Your task to perform on an android device: turn off picture-in-picture Image 0: 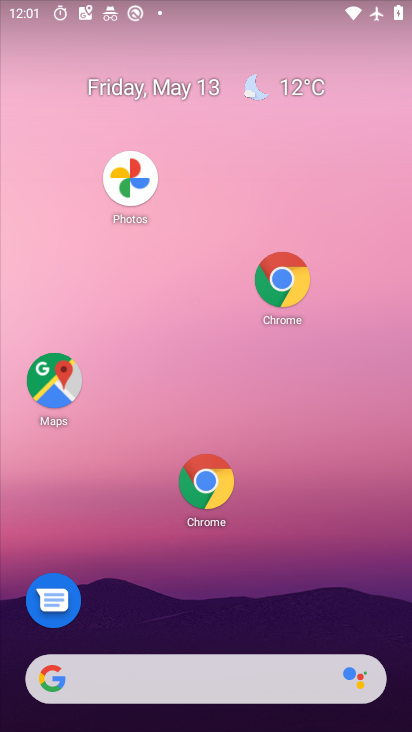
Step 0: drag from (353, 589) to (65, 33)
Your task to perform on an android device: turn off picture-in-picture Image 1: 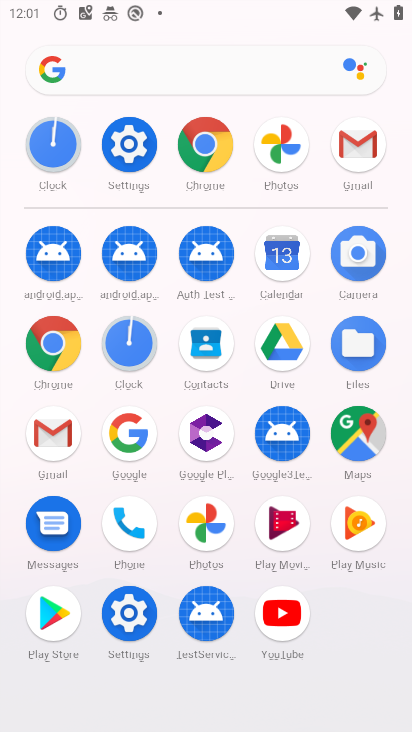
Step 1: drag from (197, 144) to (283, 392)
Your task to perform on an android device: turn off picture-in-picture Image 2: 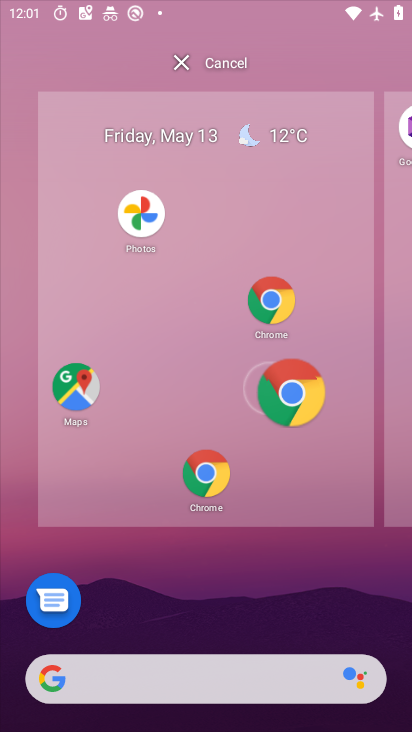
Step 2: click (287, 387)
Your task to perform on an android device: turn off picture-in-picture Image 3: 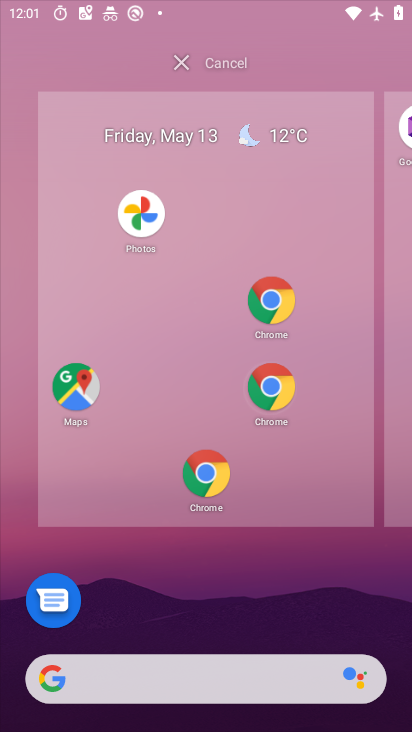
Step 3: click (287, 387)
Your task to perform on an android device: turn off picture-in-picture Image 4: 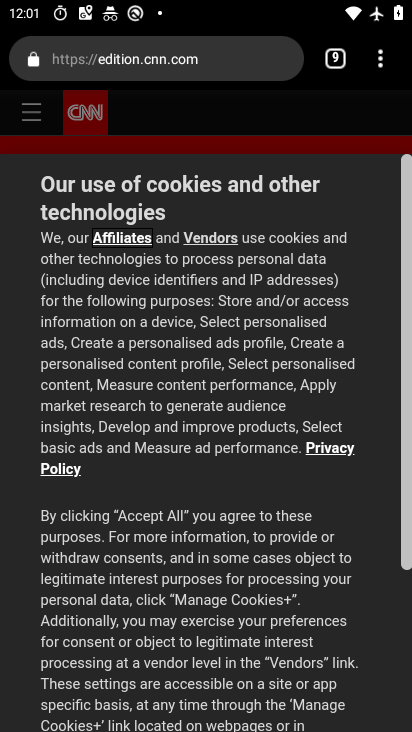
Step 4: click (378, 63)
Your task to perform on an android device: turn off picture-in-picture Image 5: 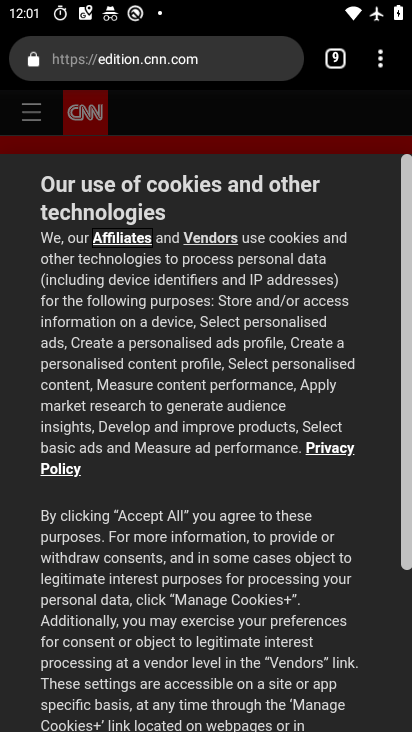
Step 5: click (386, 48)
Your task to perform on an android device: turn off picture-in-picture Image 6: 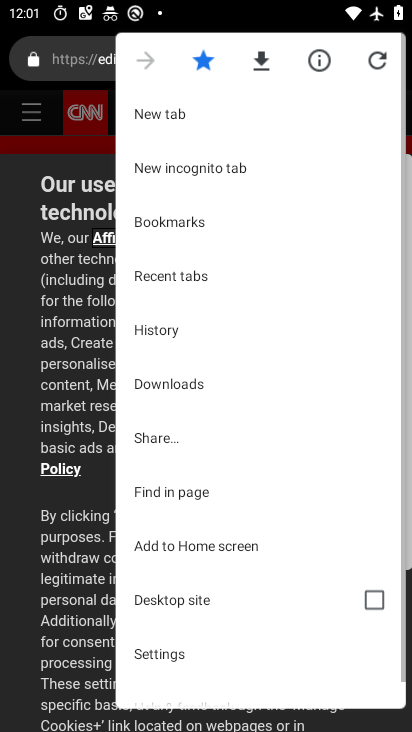
Step 6: press back button
Your task to perform on an android device: turn off picture-in-picture Image 7: 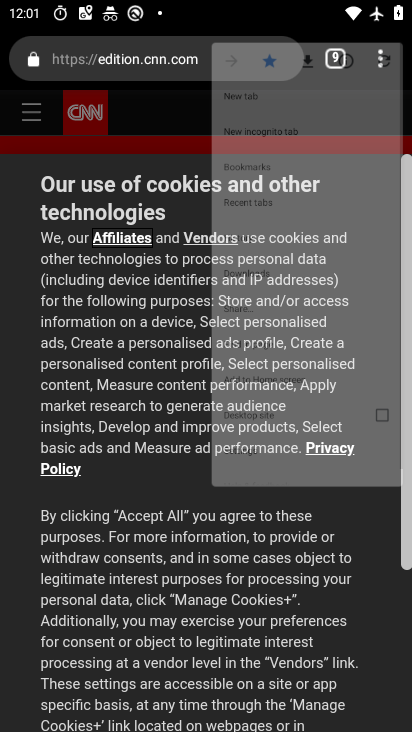
Step 7: press back button
Your task to perform on an android device: turn off picture-in-picture Image 8: 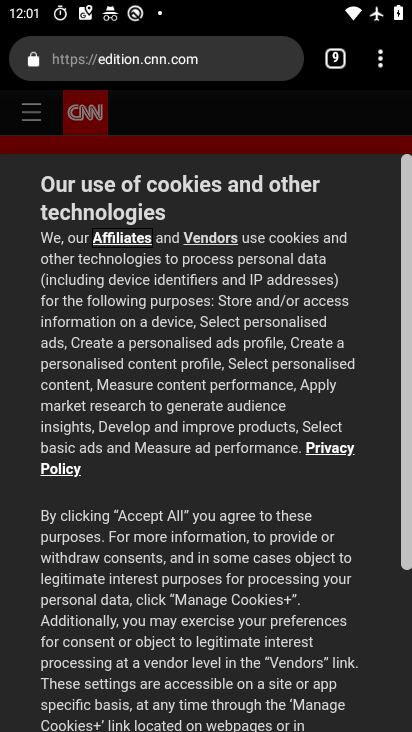
Step 8: press back button
Your task to perform on an android device: turn off picture-in-picture Image 9: 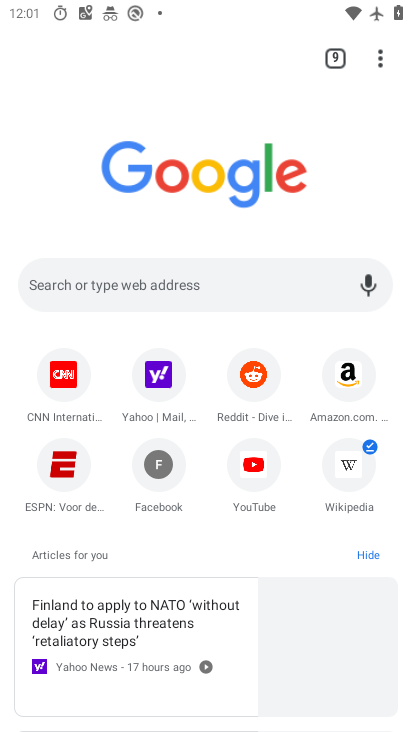
Step 9: press back button
Your task to perform on an android device: turn off picture-in-picture Image 10: 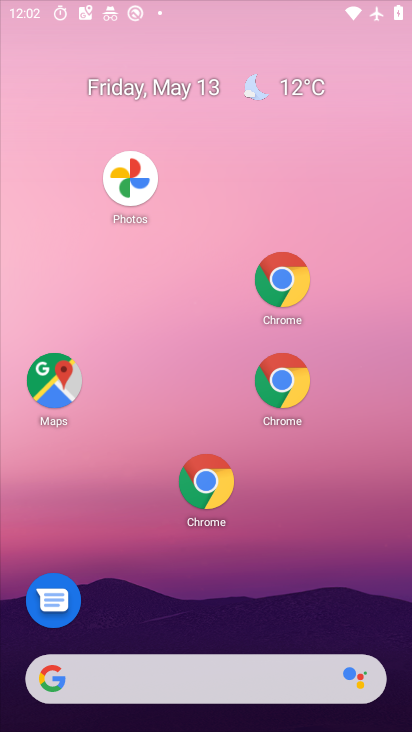
Step 10: press back button
Your task to perform on an android device: turn off picture-in-picture Image 11: 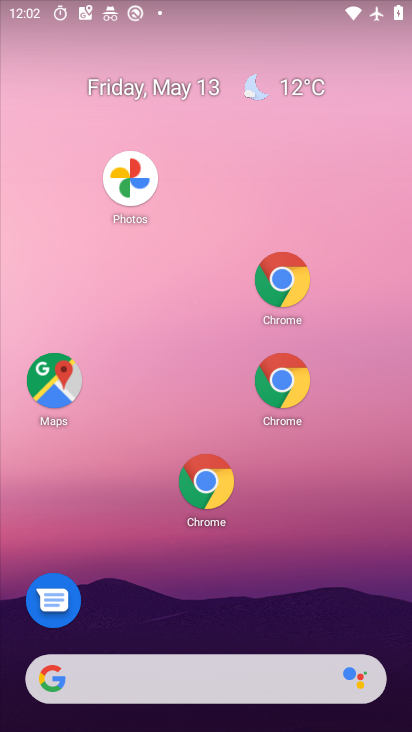
Step 11: drag from (202, 481) to (245, 291)
Your task to perform on an android device: turn off picture-in-picture Image 12: 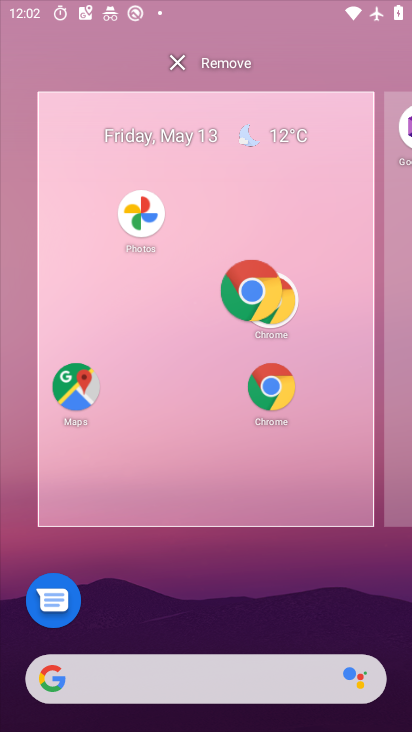
Step 12: click (244, 285)
Your task to perform on an android device: turn off picture-in-picture Image 13: 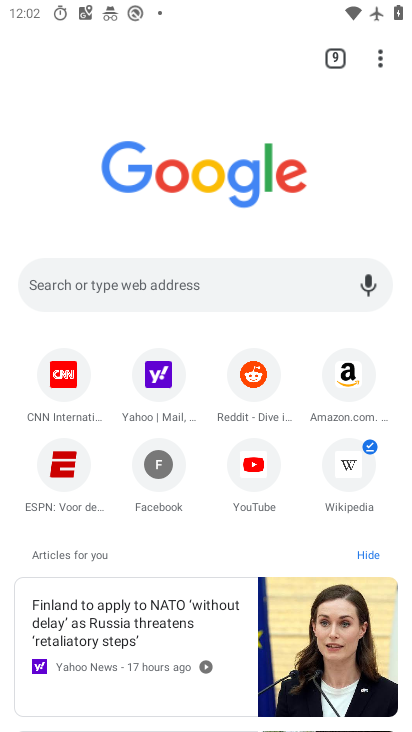
Step 13: press home button
Your task to perform on an android device: turn off picture-in-picture Image 14: 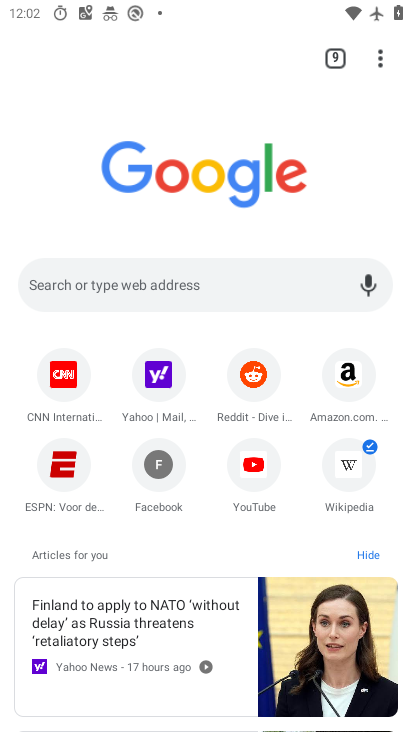
Step 14: press home button
Your task to perform on an android device: turn off picture-in-picture Image 15: 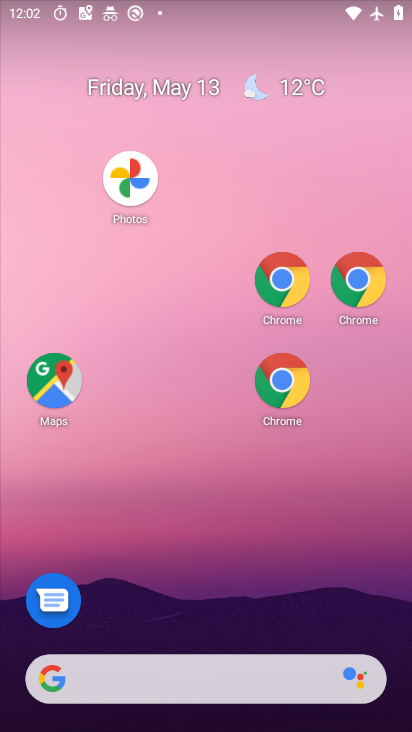
Step 15: drag from (290, 386) to (232, 187)
Your task to perform on an android device: turn off picture-in-picture Image 16: 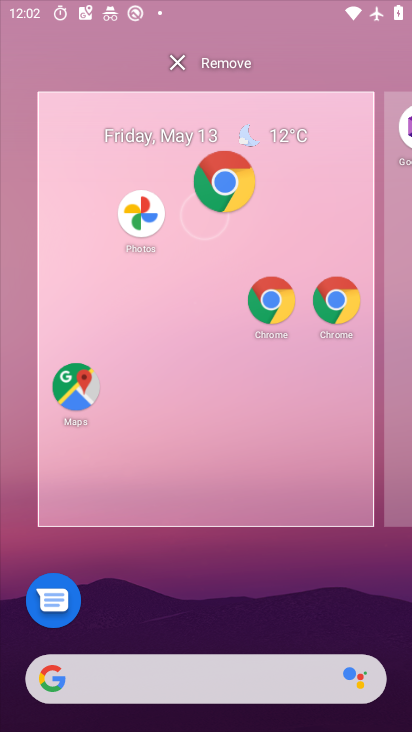
Step 16: click (231, 186)
Your task to perform on an android device: turn off picture-in-picture Image 17: 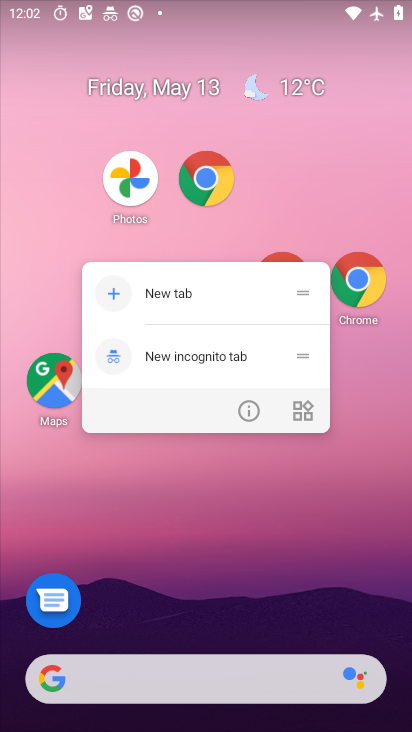
Step 17: click (236, 394)
Your task to perform on an android device: turn off picture-in-picture Image 18: 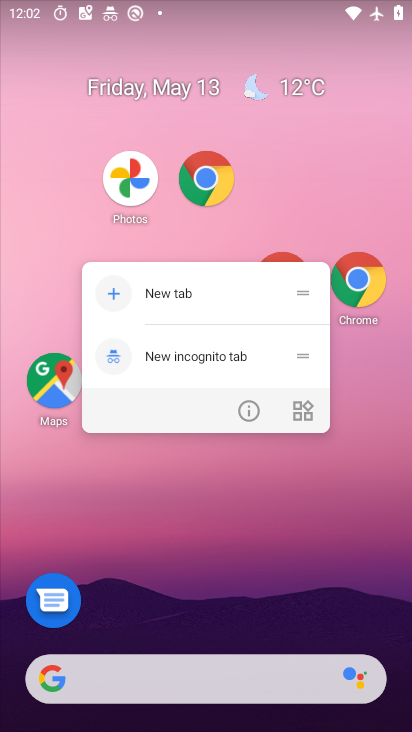
Step 18: click (249, 390)
Your task to perform on an android device: turn off picture-in-picture Image 19: 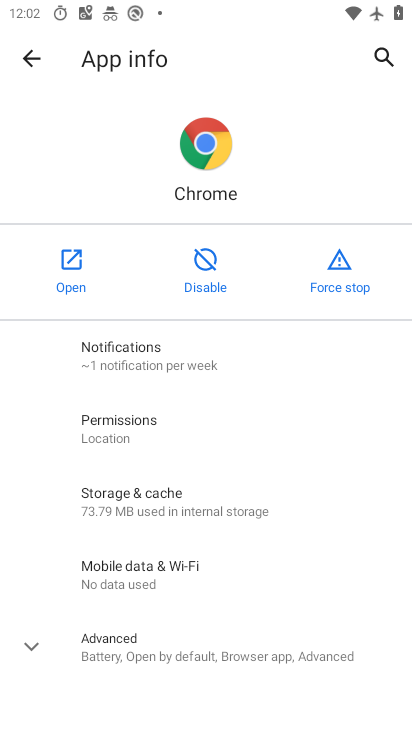
Step 19: drag from (174, 568) to (96, 378)
Your task to perform on an android device: turn off picture-in-picture Image 20: 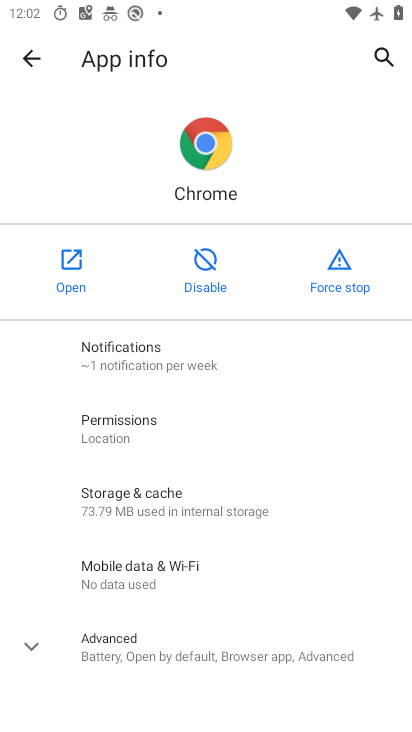
Step 20: drag from (189, 555) to (116, 283)
Your task to perform on an android device: turn off picture-in-picture Image 21: 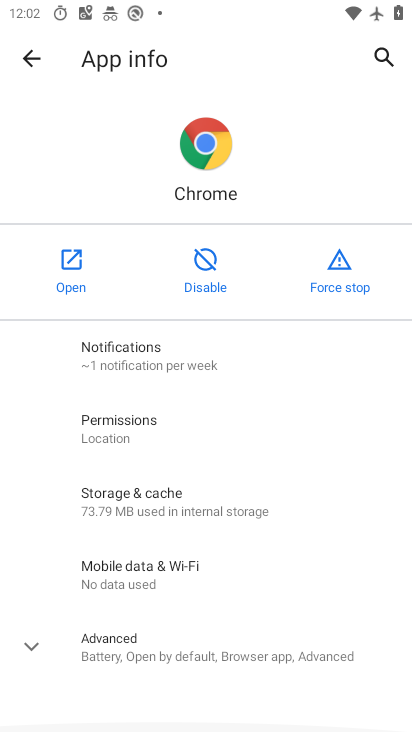
Step 21: drag from (217, 507) to (175, 149)
Your task to perform on an android device: turn off picture-in-picture Image 22: 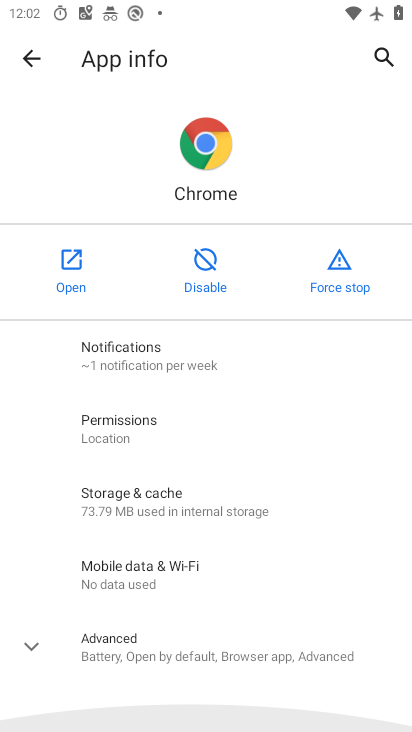
Step 22: drag from (268, 570) to (196, 289)
Your task to perform on an android device: turn off picture-in-picture Image 23: 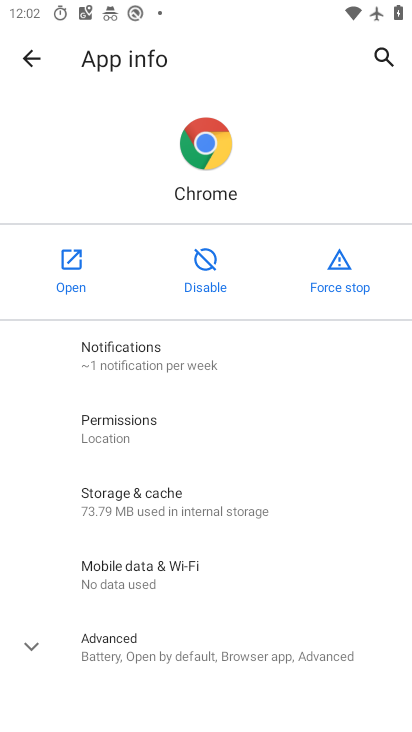
Step 23: drag from (205, 536) to (75, 313)
Your task to perform on an android device: turn off picture-in-picture Image 24: 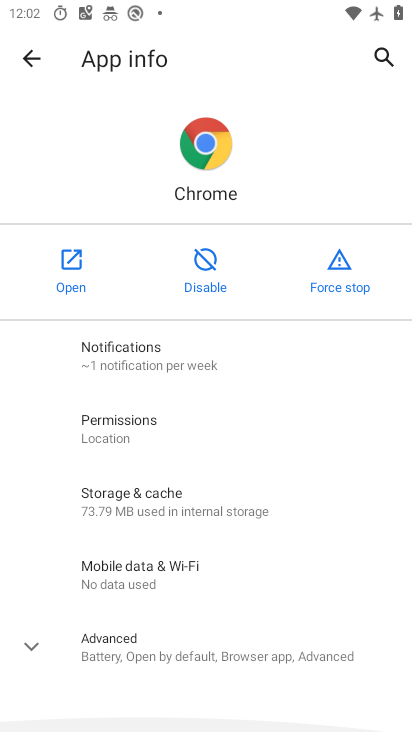
Step 24: drag from (153, 496) to (85, 239)
Your task to perform on an android device: turn off picture-in-picture Image 25: 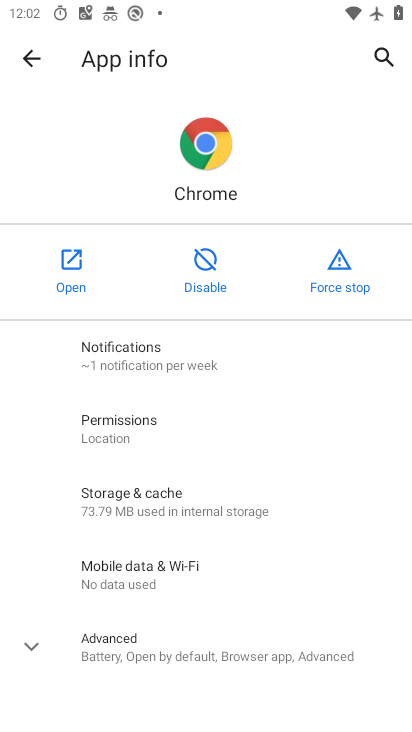
Step 25: drag from (192, 484) to (203, 226)
Your task to perform on an android device: turn off picture-in-picture Image 26: 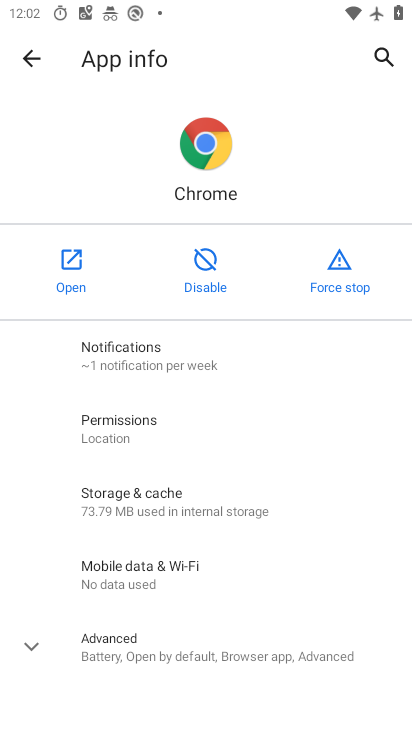
Step 26: click (113, 641)
Your task to perform on an android device: turn off picture-in-picture Image 27: 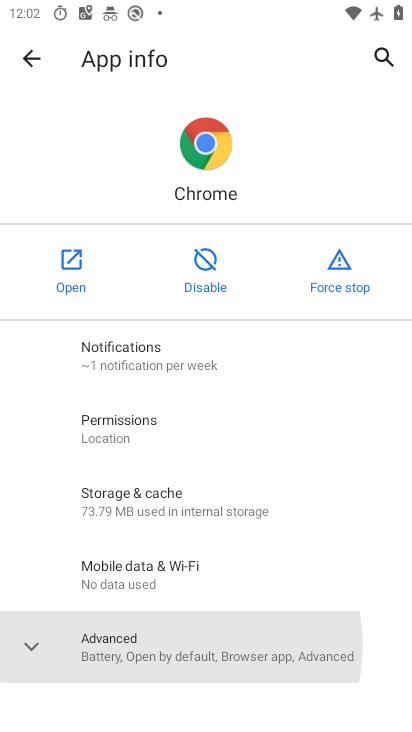
Step 27: click (113, 639)
Your task to perform on an android device: turn off picture-in-picture Image 28: 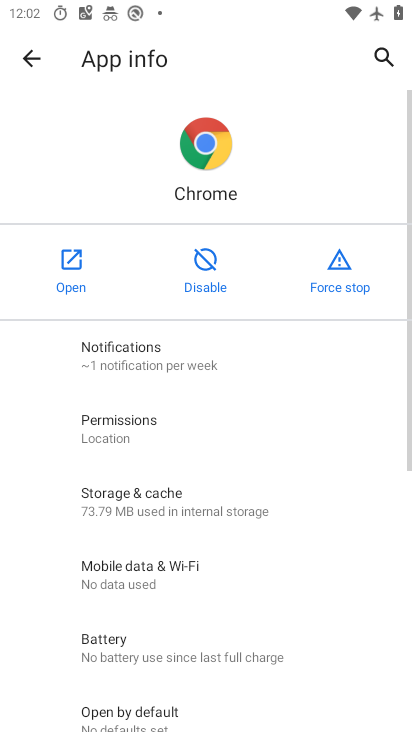
Step 28: drag from (148, 457) to (12, 41)
Your task to perform on an android device: turn off picture-in-picture Image 29: 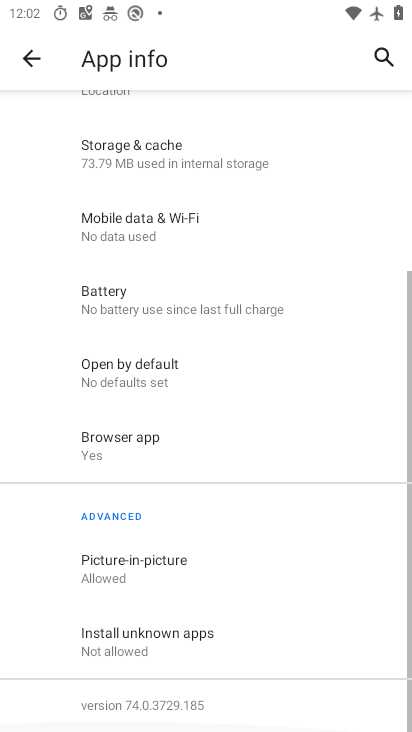
Step 29: drag from (171, 481) to (107, 149)
Your task to perform on an android device: turn off picture-in-picture Image 30: 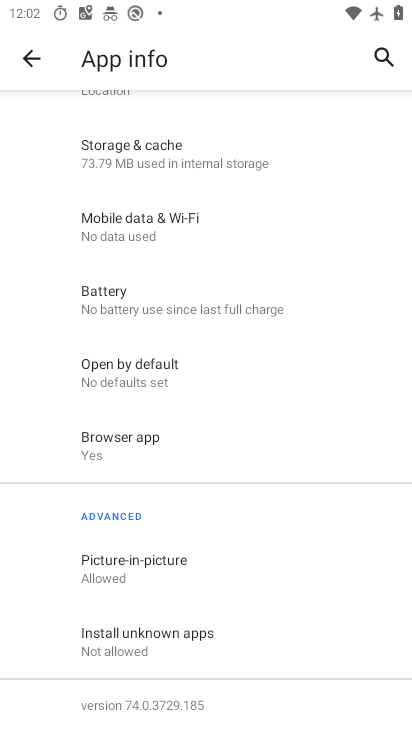
Step 30: click (110, 562)
Your task to perform on an android device: turn off picture-in-picture Image 31: 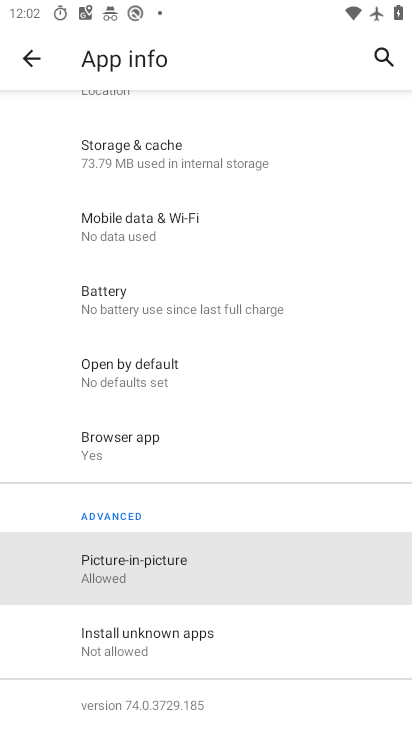
Step 31: click (109, 565)
Your task to perform on an android device: turn off picture-in-picture Image 32: 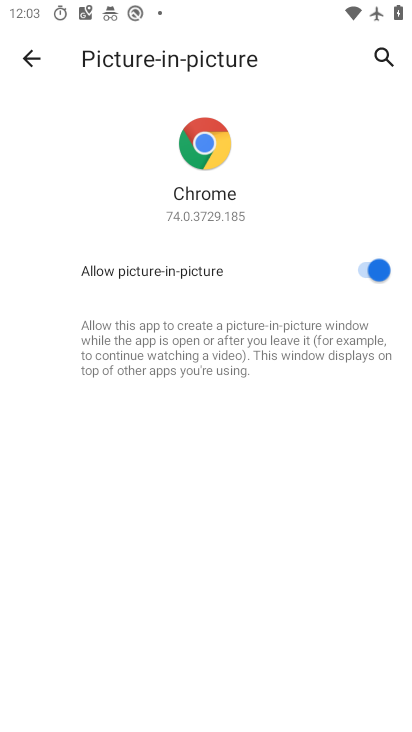
Step 32: click (375, 268)
Your task to perform on an android device: turn off picture-in-picture Image 33: 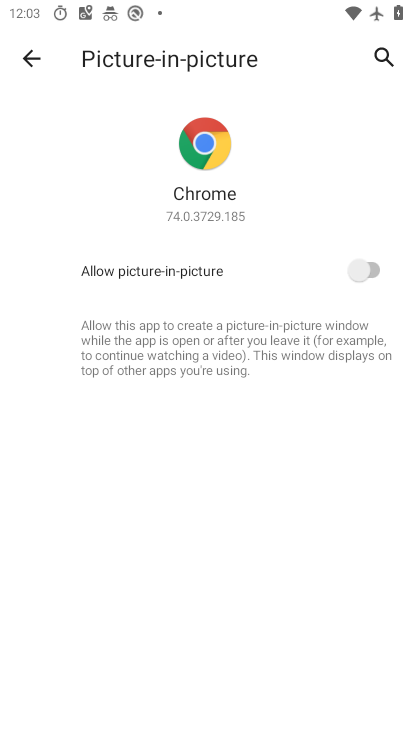
Step 33: task complete